Your task to perform on an android device: Open Youtube and go to the subscriptions tab Image 0: 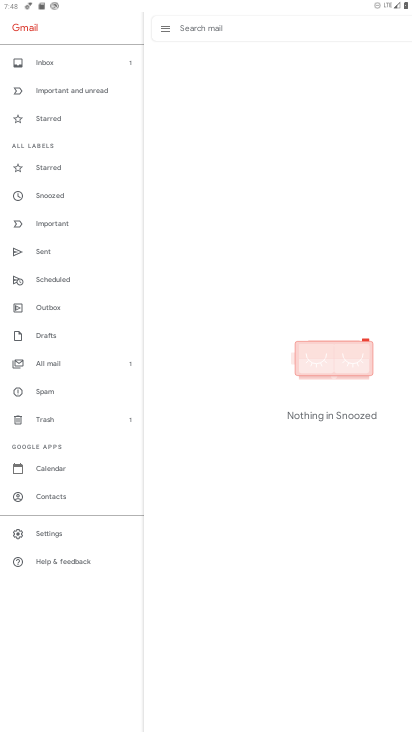
Step 0: press home button
Your task to perform on an android device: Open Youtube and go to the subscriptions tab Image 1: 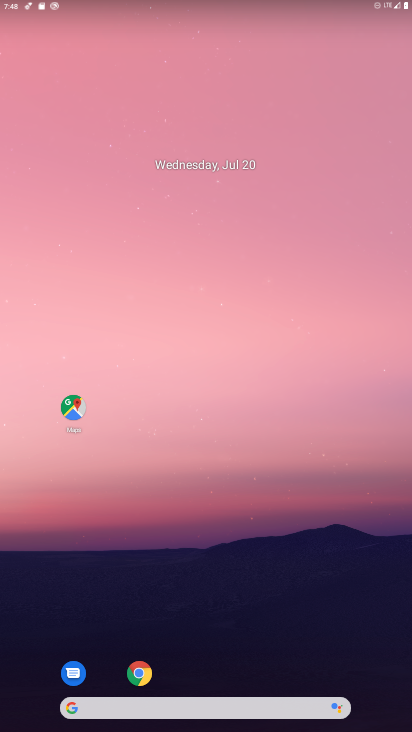
Step 1: drag from (349, 613) to (363, 6)
Your task to perform on an android device: Open Youtube and go to the subscriptions tab Image 2: 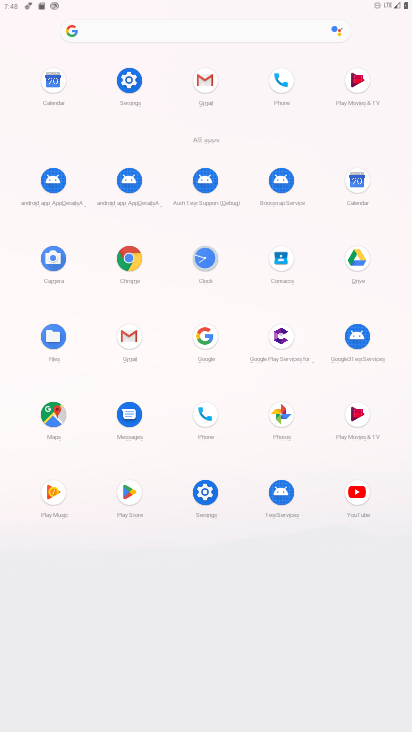
Step 2: click (363, 504)
Your task to perform on an android device: Open Youtube and go to the subscriptions tab Image 3: 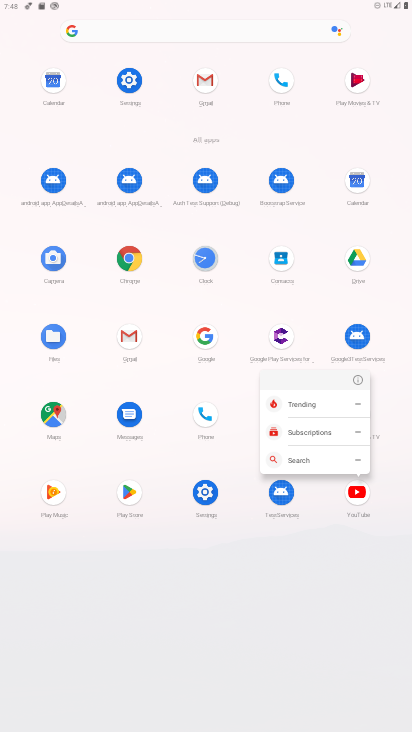
Step 3: click (363, 503)
Your task to perform on an android device: Open Youtube and go to the subscriptions tab Image 4: 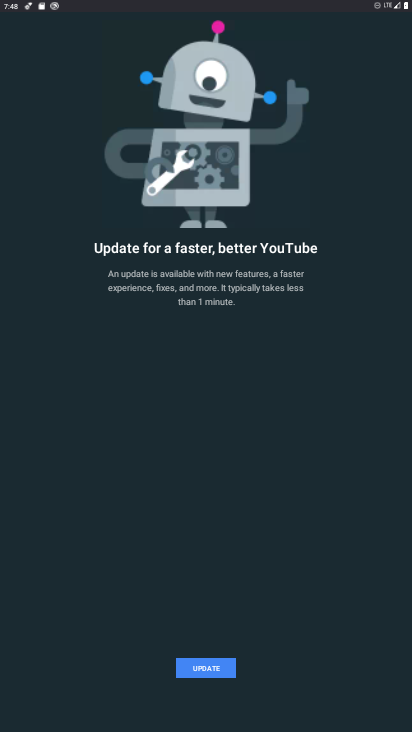
Step 4: click (193, 683)
Your task to perform on an android device: Open Youtube and go to the subscriptions tab Image 5: 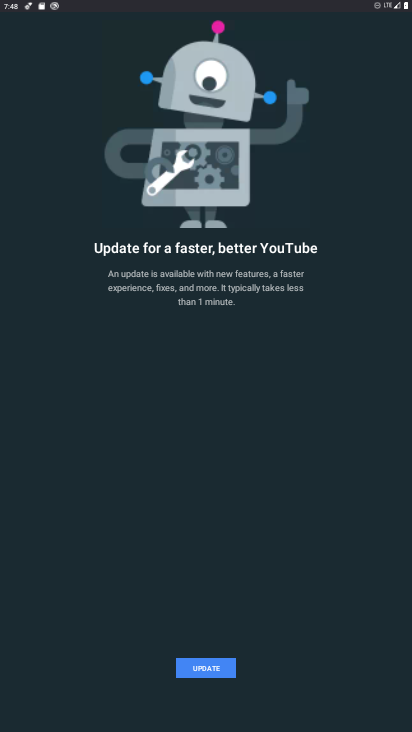
Step 5: click (189, 663)
Your task to perform on an android device: Open Youtube and go to the subscriptions tab Image 6: 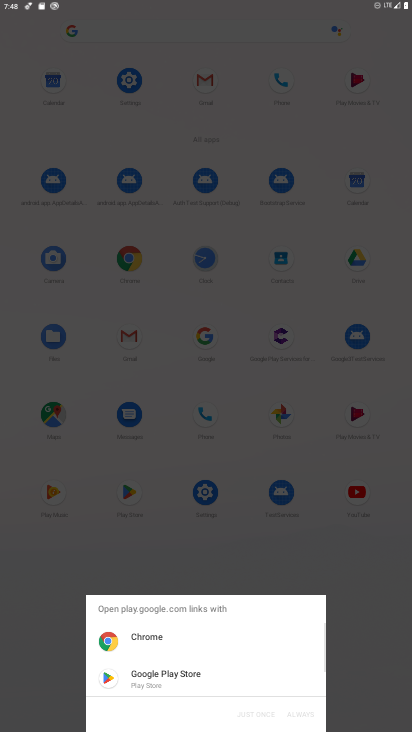
Step 6: click (160, 680)
Your task to perform on an android device: Open Youtube and go to the subscriptions tab Image 7: 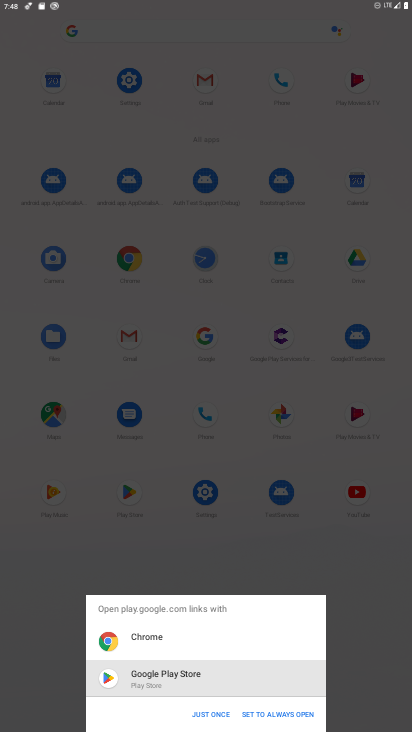
Step 7: click (205, 714)
Your task to perform on an android device: Open Youtube and go to the subscriptions tab Image 8: 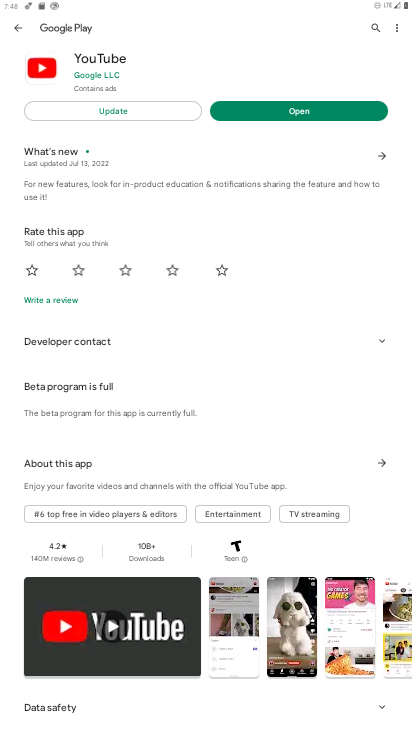
Step 8: click (123, 114)
Your task to perform on an android device: Open Youtube and go to the subscriptions tab Image 9: 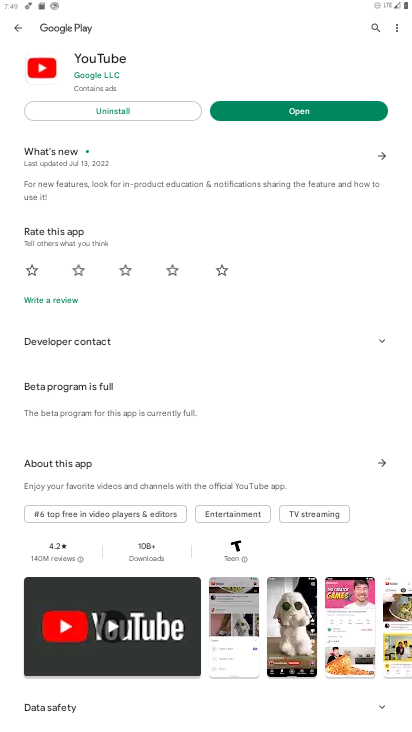
Step 9: click (319, 119)
Your task to perform on an android device: Open Youtube and go to the subscriptions tab Image 10: 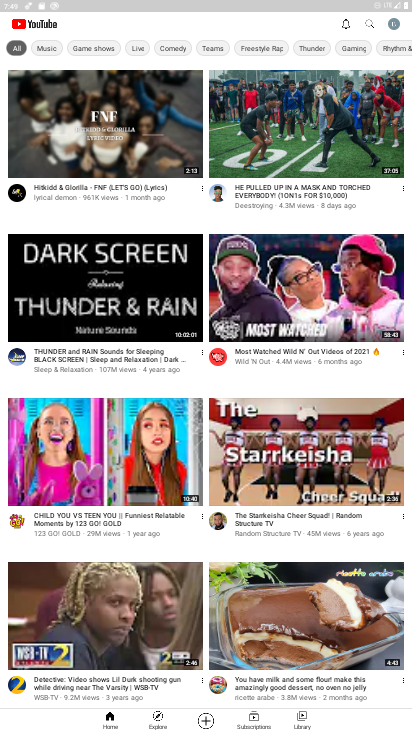
Step 10: click (251, 726)
Your task to perform on an android device: Open Youtube and go to the subscriptions tab Image 11: 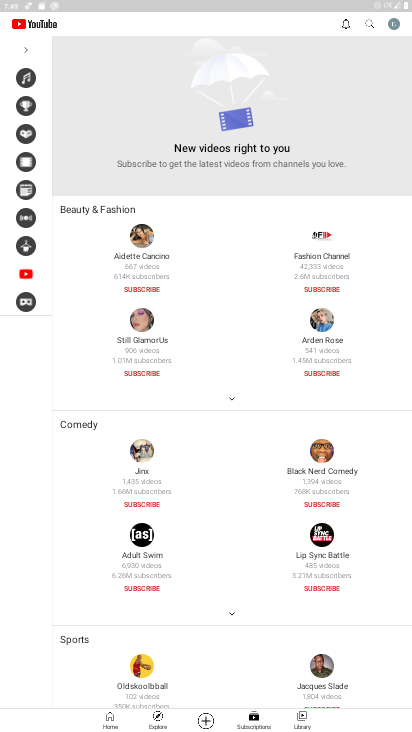
Step 11: task complete